Your task to perform on an android device: empty trash in the gmail app Image 0: 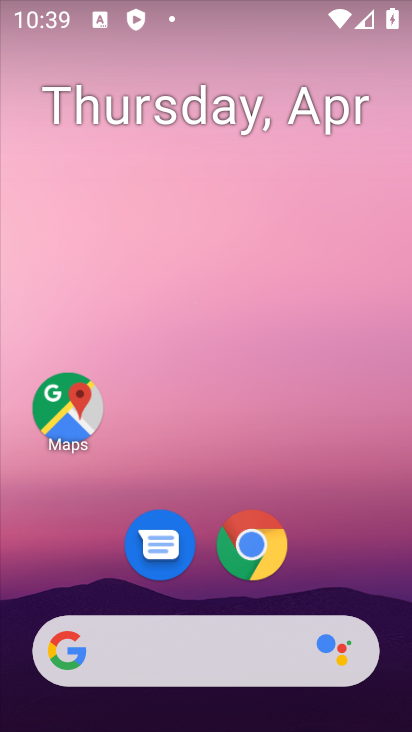
Step 0: drag from (63, 323) to (103, 213)
Your task to perform on an android device: empty trash in the gmail app Image 1: 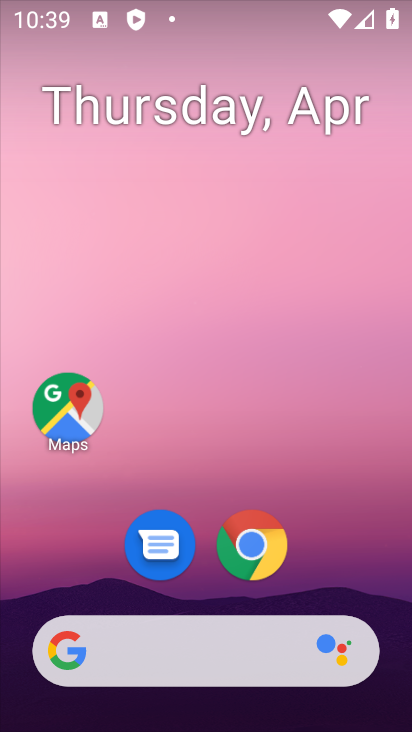
Step 1: drag from (237, 234) to (283, 148)
Your task to perform on an android device: empty trash in the gmail app Image 2: 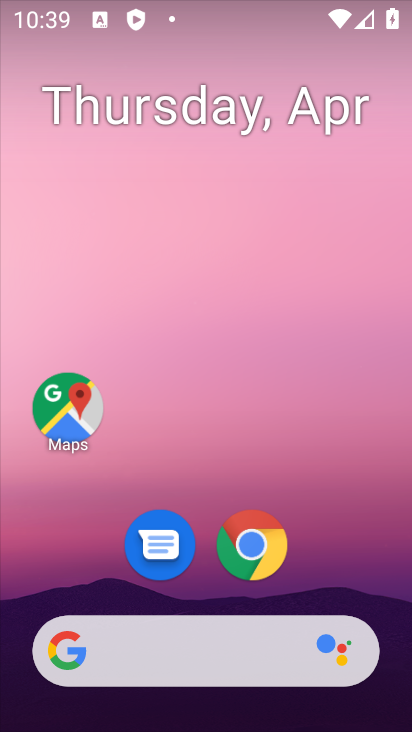
Step 2: drag from (0, 626) to (215, 207)
Your task to perform on an android device: empty trash in the gmail app Image 3: 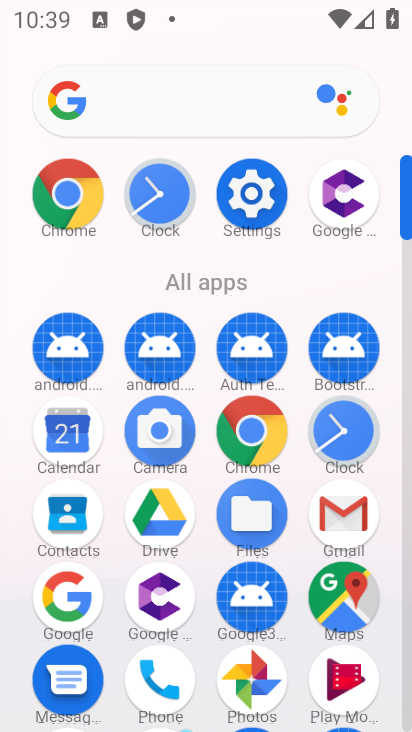
Step 3: click (374, 516)
Your task to perform on an android device: empty trash in the gmail app Image 4: 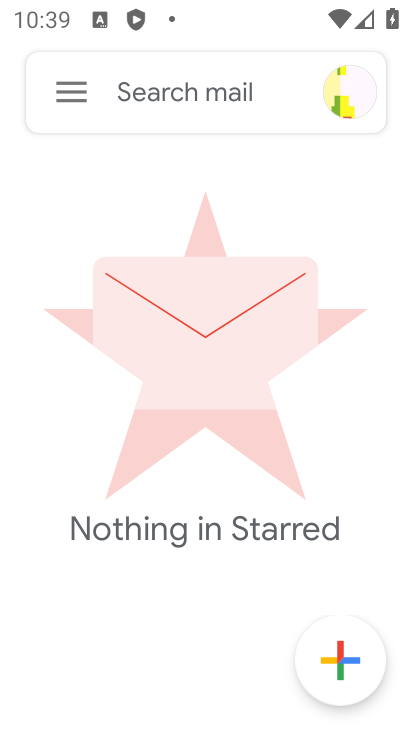
Step 4: click (69, 94)
Your task to perform on an android device: empty trash in the gmail app Image 5: 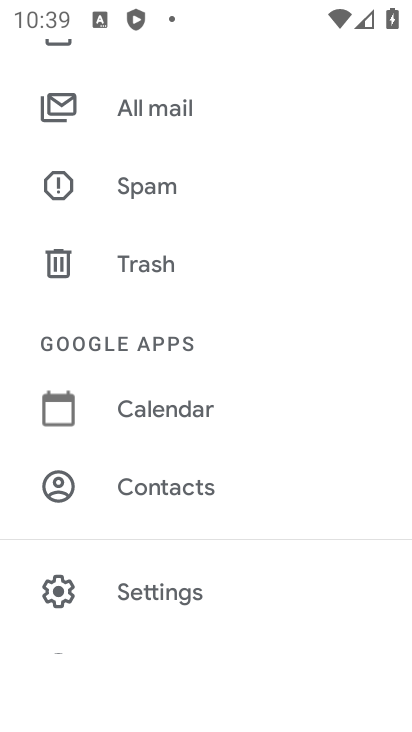
Step 5: click (129, 259)
Your task to perform on an android device: empty trash in the gmail app Image 6: 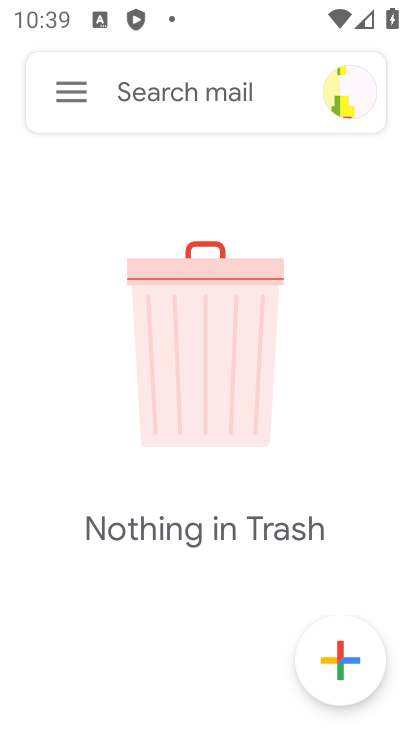
Step 6: task complete